Your task to perform on an android device: Open network settings Image 0: 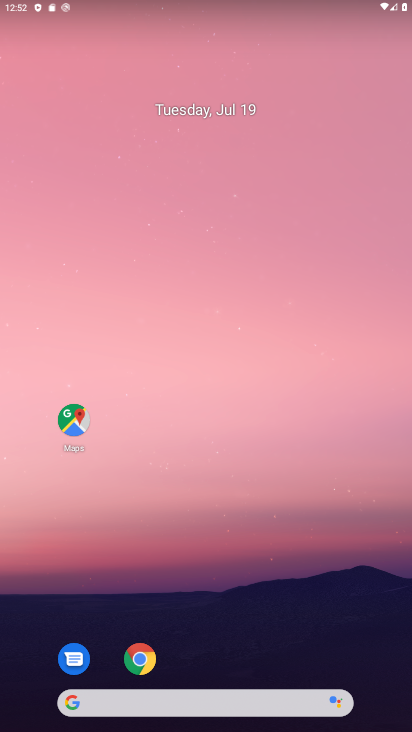
Step 0: press home button
Your task to perform on an android device: Open network settings Image 1: 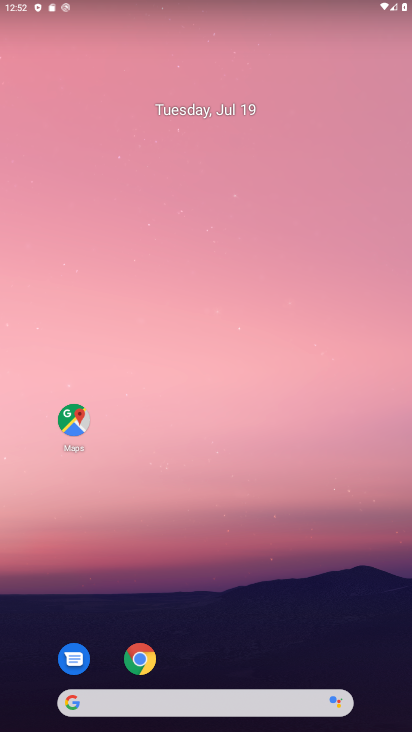
Step 1: drag from (280, 691) to (247, 27)
Your task to perform on an android device: Open network settings Image 2: 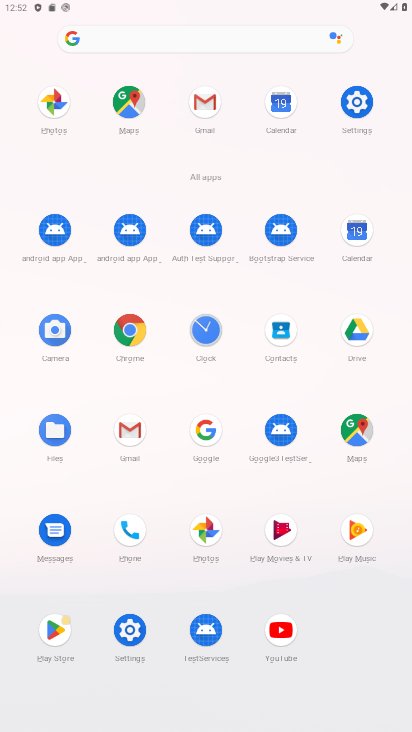
Step 2: click (127, 636)
Your task to perform on an android device: Open network settings Image 3: 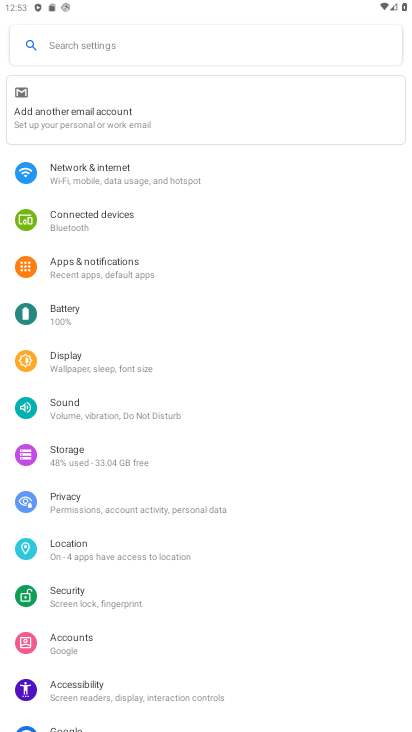
Step 3: click (211, 187)
Your task to perform on an android device: Open network settings Image 4: 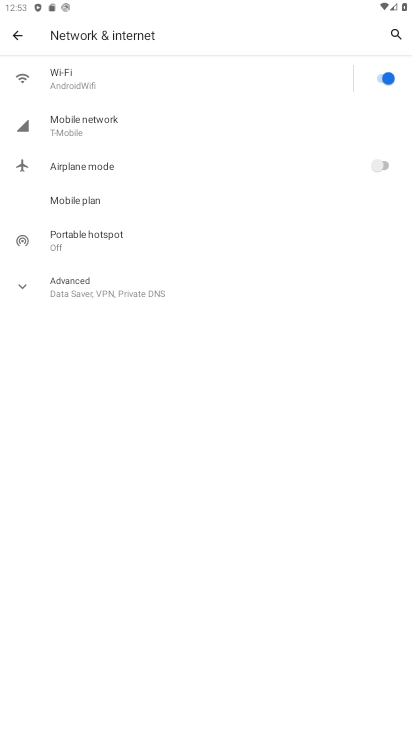
Step 4: task complete